Your task to perform on an android device: delete the emails in spam in the gmail app Image 0: 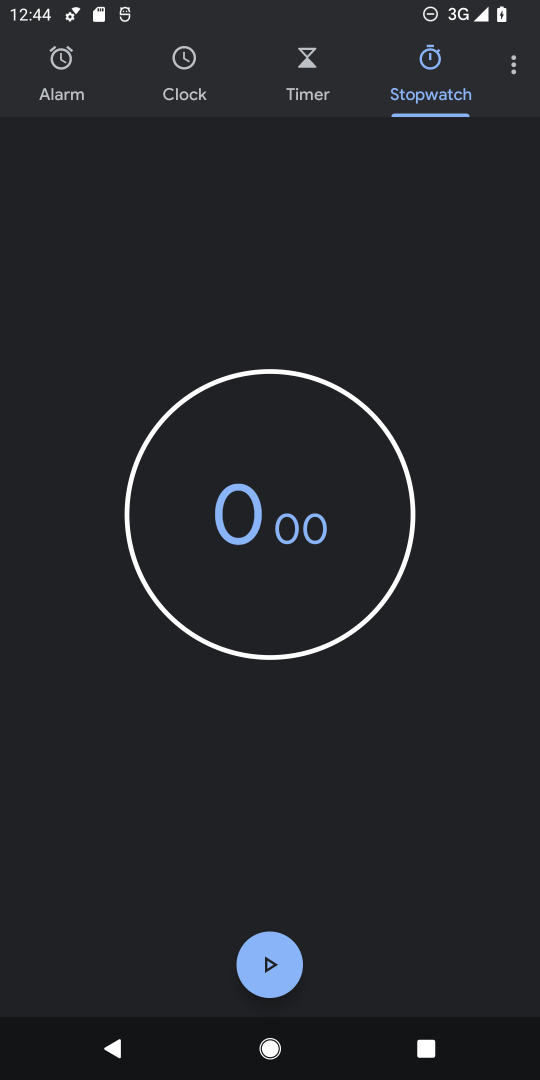
Step 0: press home button
Your task to perform on an android device: delete the emails in spam in the gmail app Image 1: 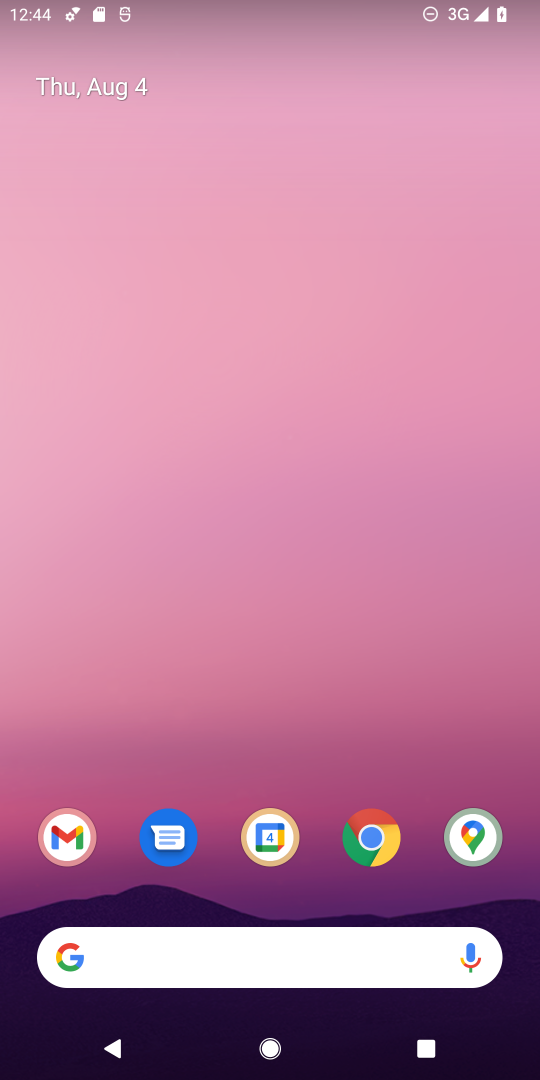
Step 1: drag from (508, 916) to (349, 27)
Your task to perform on an android device: delete the emails in spam in the gmail app Image 2: 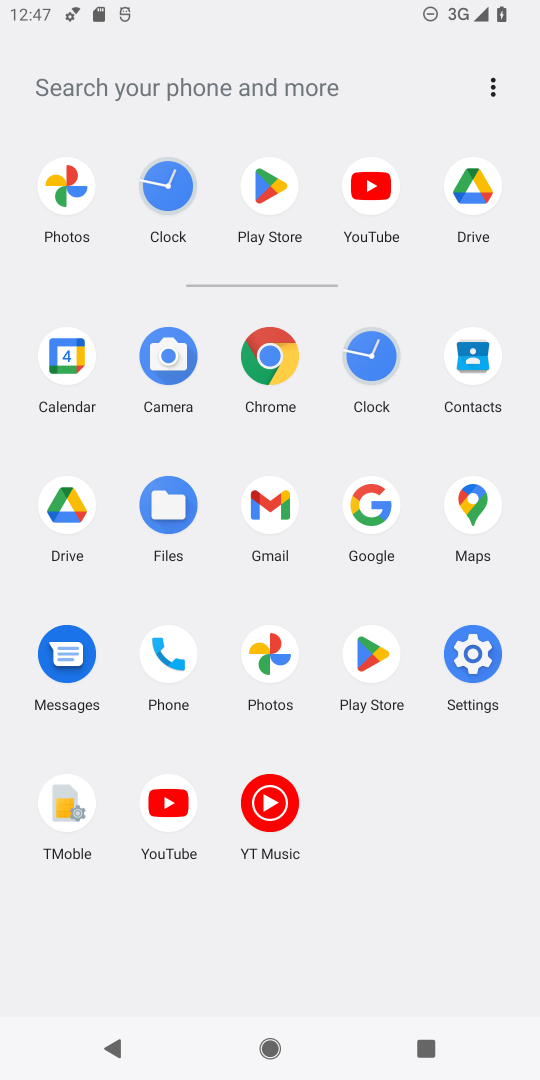
Step 2: click (272, 522)
Your task to perform on an android device: delete the emails in spam in the gmail app Image 3: 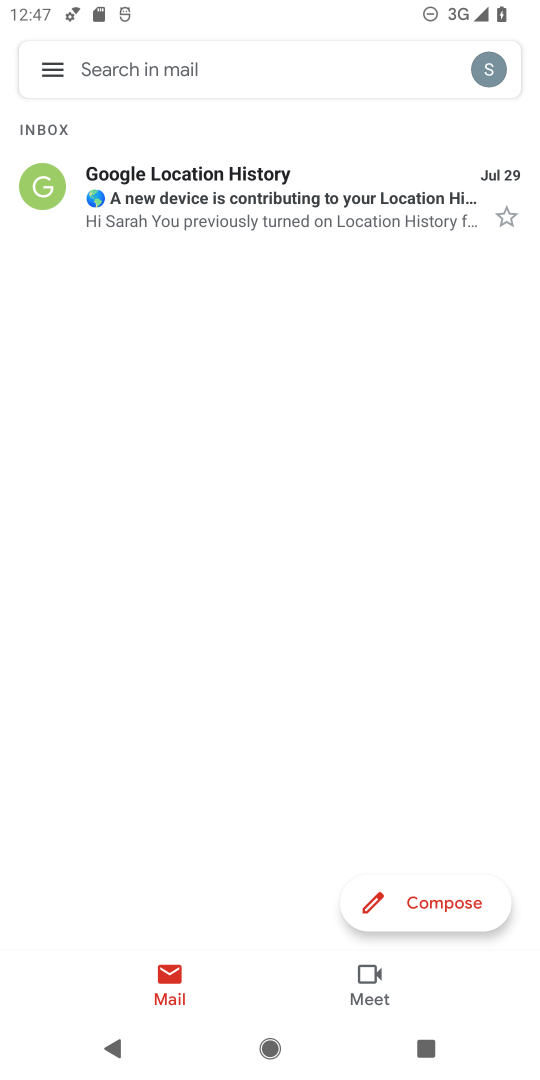
Step 3: click (25, 50)
Your task to perform on an android device: delete the emails in spam in the gmail app Image 4: 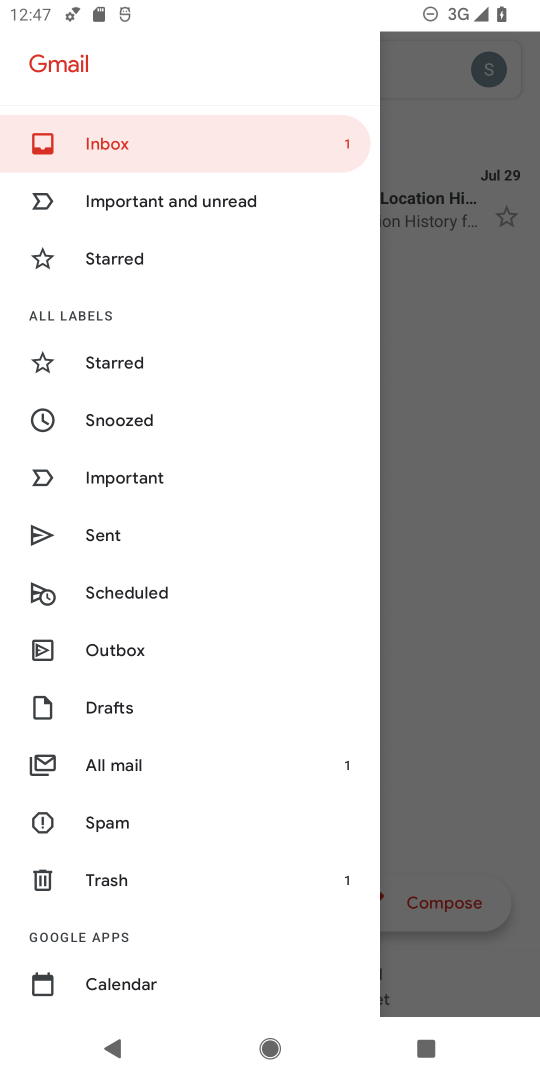
Step 4: click (114, 836)
Your task to perform on an android device: delete the emails in spam in the gmail app Image 5: 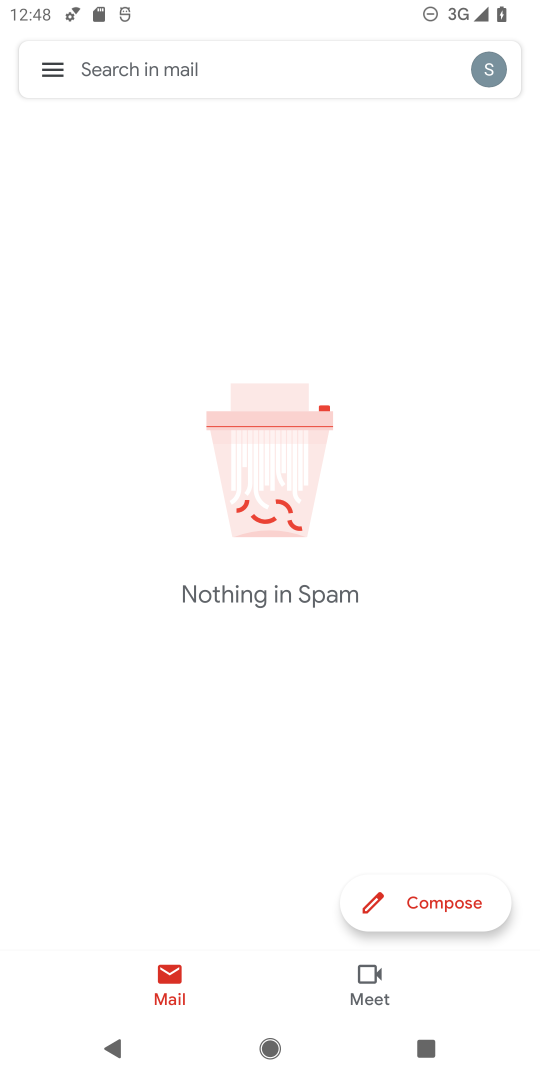
Step 5: task complete